Your task to perform on an android device: What is the recent news? Image 0: 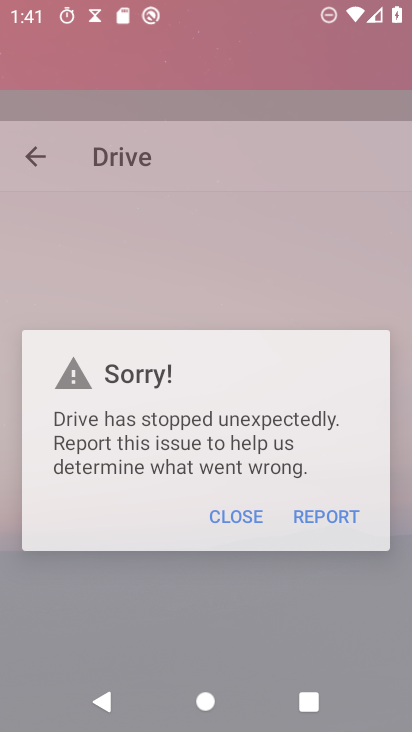
Step 0: drag from (245, 631) to (381, 117)
Your task to perform on an android device: What is the recent news? Image 1: 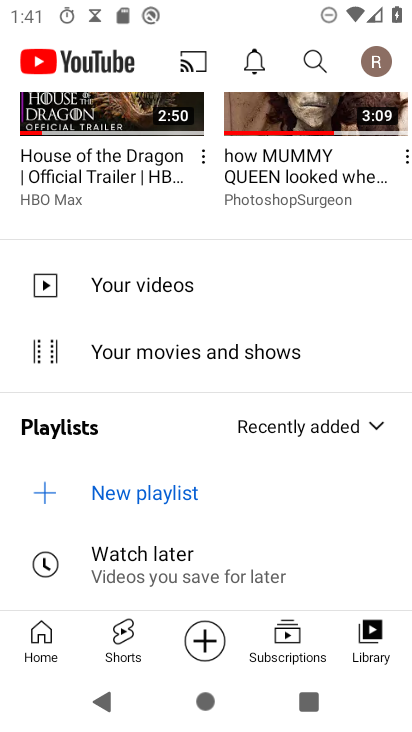
Step 1: press home button
Your task to perform on an android device: What is the recent news? Image 2: 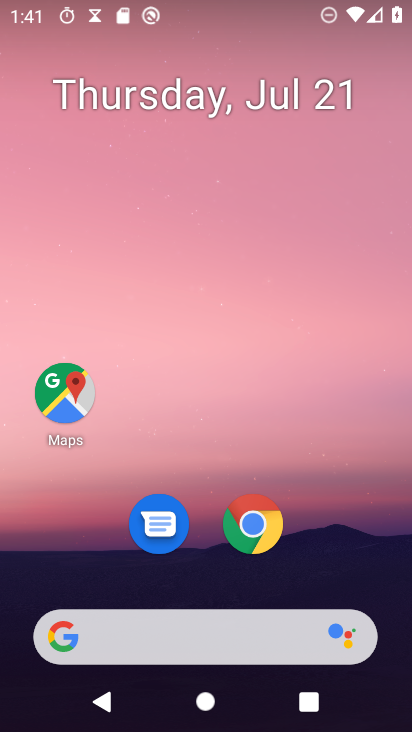
Step 2: click (177, 640)
Your task to perform on an android device: What is the recent news? Image 3: 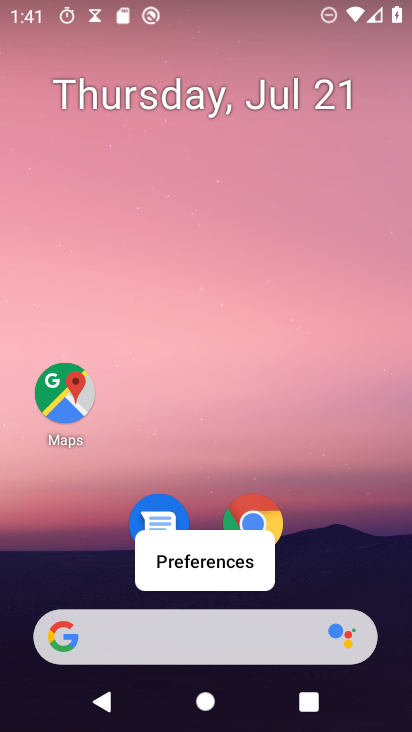
Step 3: click (125, 635)
Your task to perform on an android device: What is the recent news? Image 4: 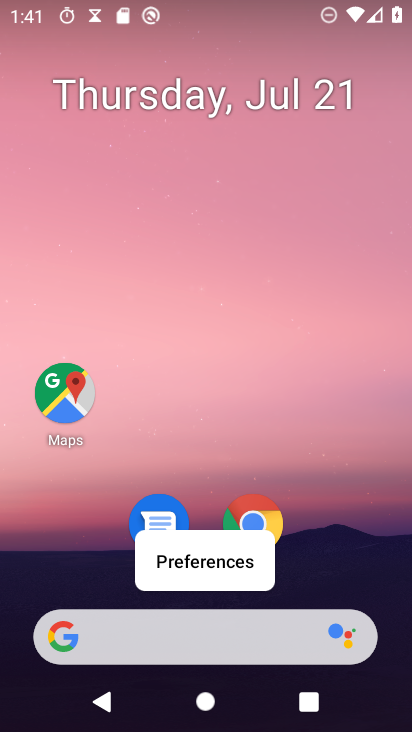
Step 4: click (140, 624)
Your task to perform on an android device: What is the recent news? Image 5: 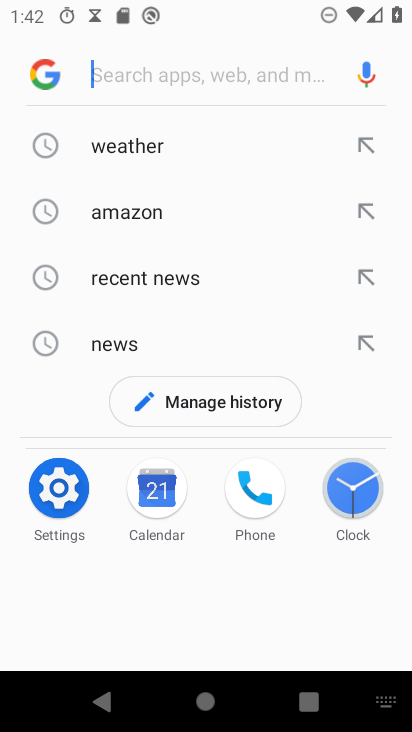
Step 5: click (180, 285)
Your task to perform on an android device: What is the recent news? Image 6: 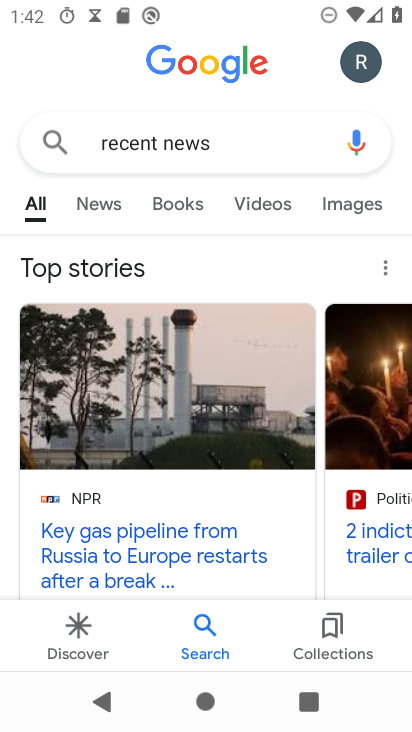
Step 6: click (109, 201)
Your task to perform on an android device: What is the recent news? Image 7: 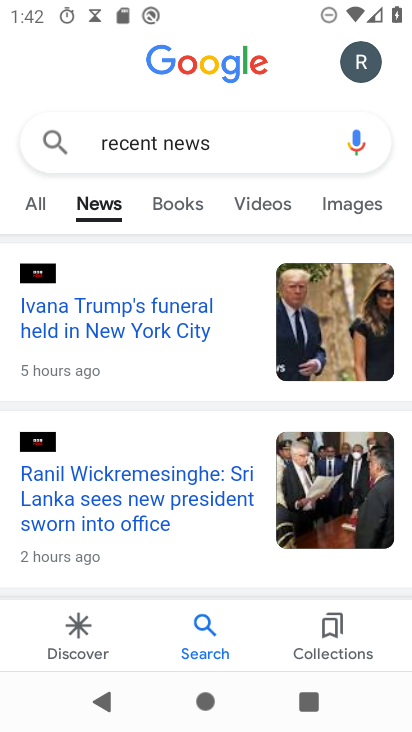
Step 7: task complete